Your task to perform on an android device: Go to notification settings Image 0: 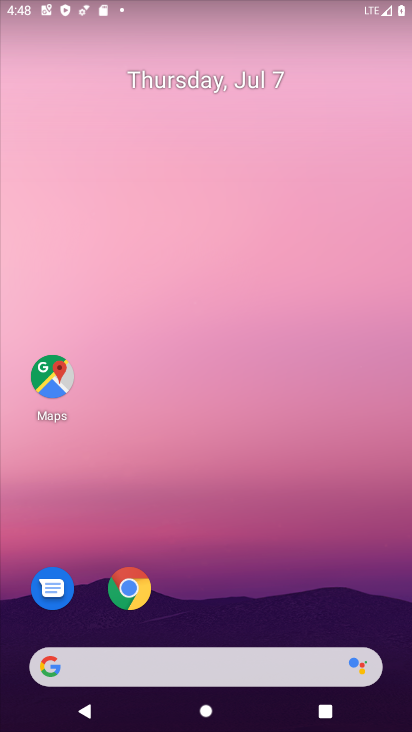
Step 0: drag from (320, 667) to (330, 28)
Your task to perform on an android device: Go to notification settings Image 1: 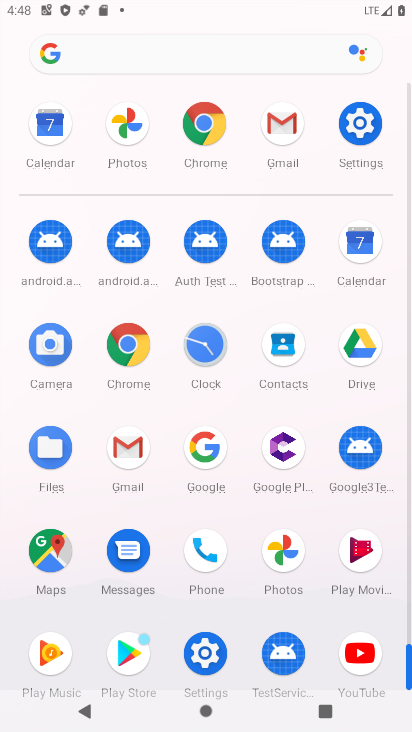
Step 1: click (353, 122)
Your task to perform on an android device: Go to notification settings Image 2: 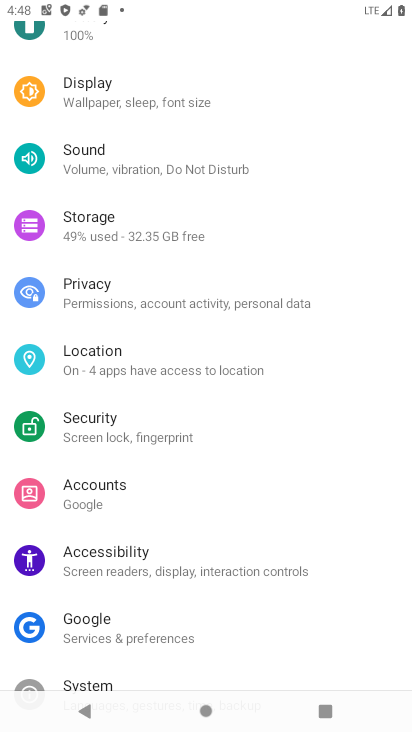
Step 2: drag from (216, 88) to (240, 609)
Your task to perform on an android device: Go to notification settings Image 3: 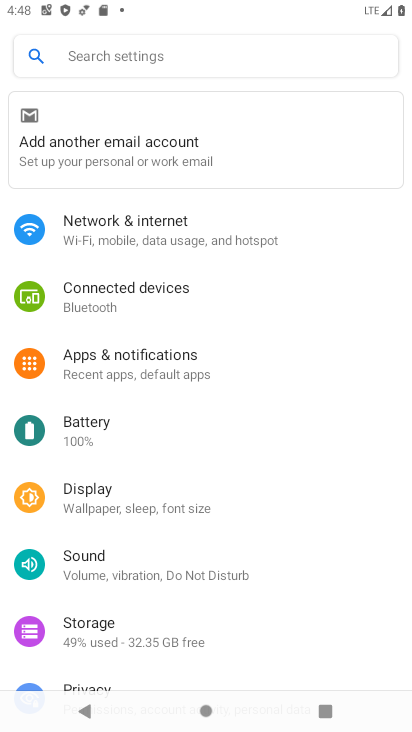
Step 3: click (158, 371)
Your task to perform on an android device: Go to notification settings Image 4: 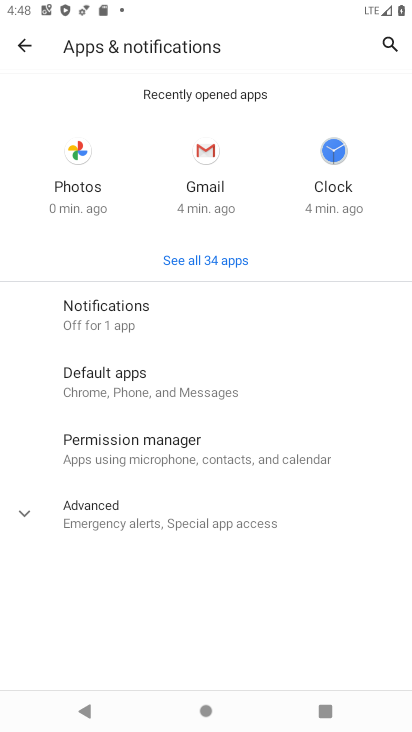
Step 4: click (136, 320)
Your task to perform on an android device: Go to notification settings Image 5: 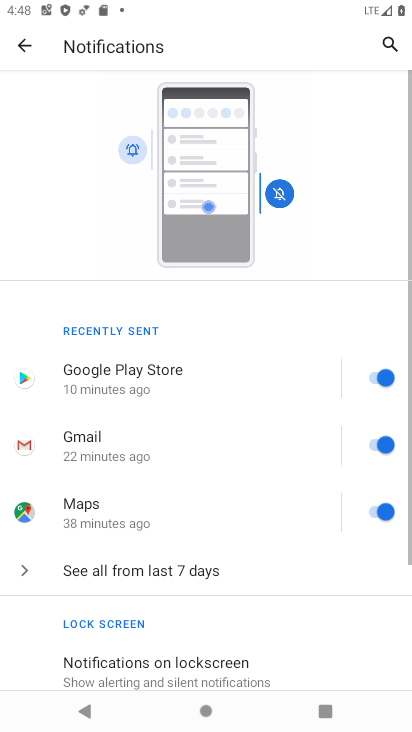
Step 5: task complete